Your task to perform on an android device: check out phone information Image 0: 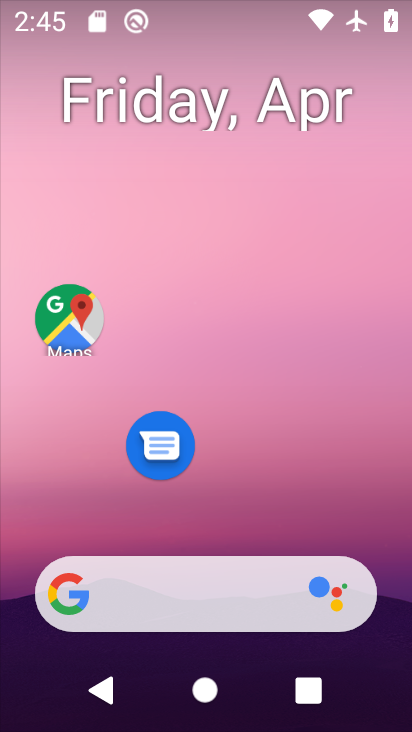
Step 0: drag from (248, 495) to (358, 40)
Your task to perform on an android device: check out phone information Image 1: 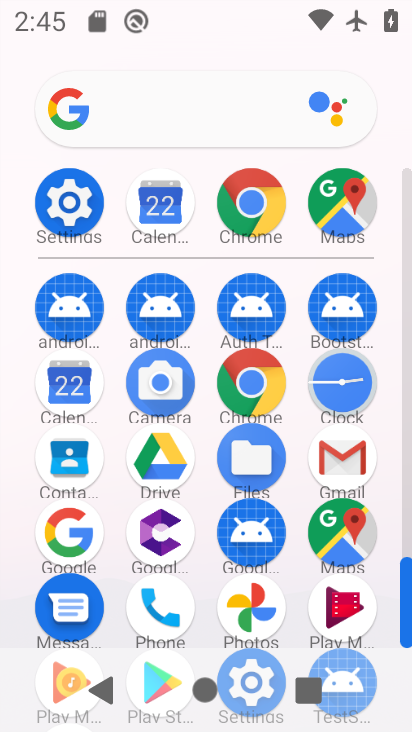
Step 1: drag from (288, 629) to (347, 356)
Your task to perform on an android device: check out phone information Image 2: 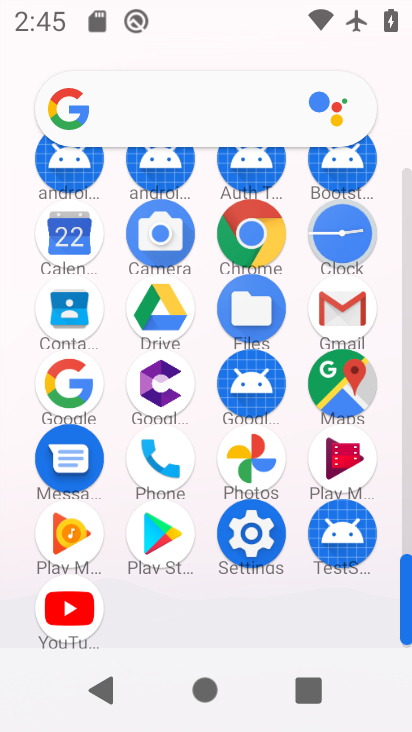
Step 2: click (256, 541)
Your task to perform on an android device: check out phone information Image 3: 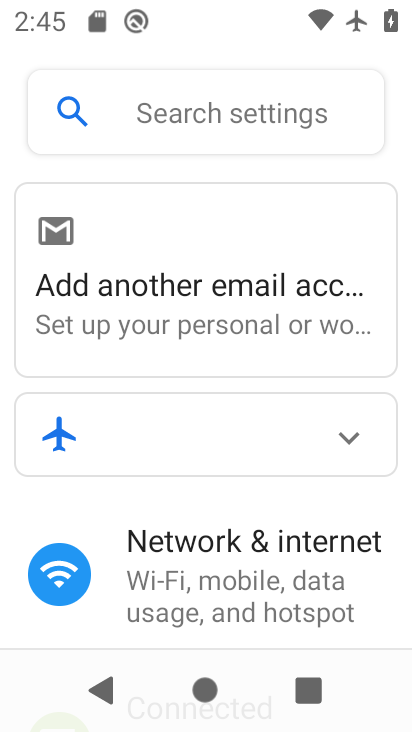
Step 3: drag from (220, 580) to (217, 432)
Your task to perform on an android device: check out phone information Image 4: 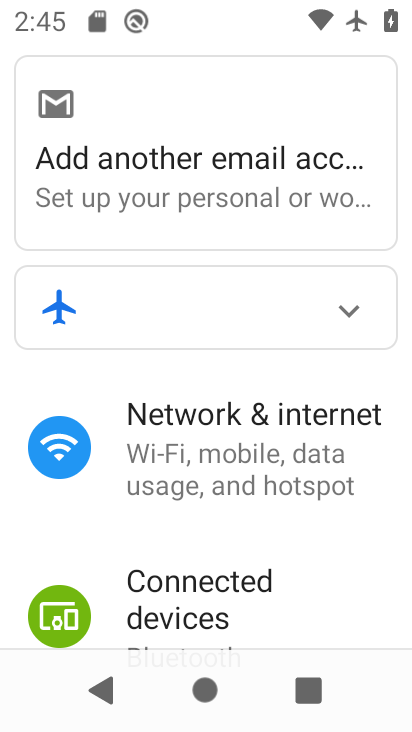
Step 4: drag from (203, 590) to (202, 462)
Your task to perform on an android device: check out phone information Image 5: 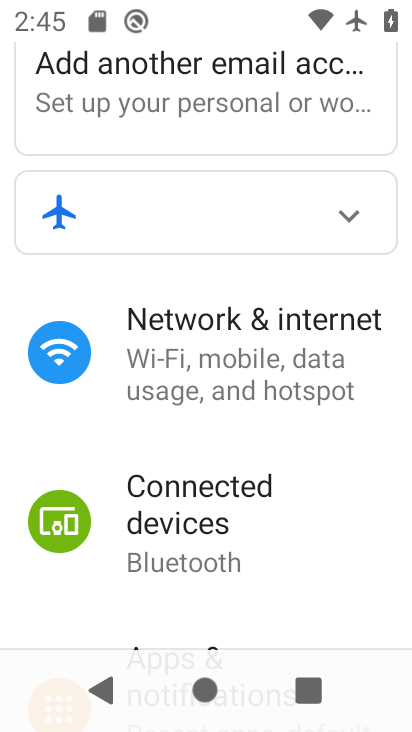
Step 5: drag from (220, 603) to (197, 420)
Your task to perform on an android device: check out phone information Image 6: 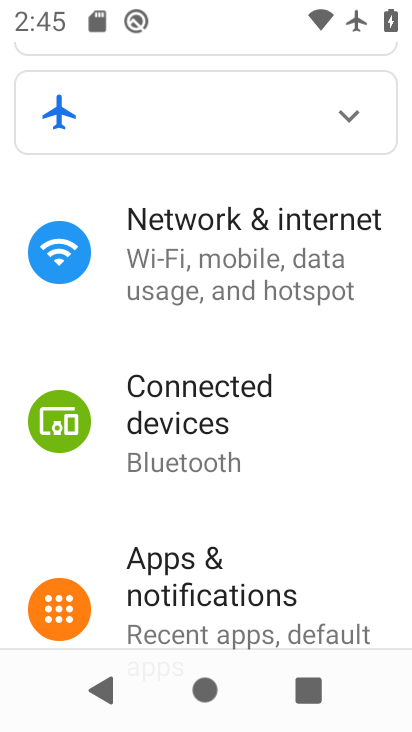
Step 6: drag from (146, 593) to (122, 431)
Your task to perform on an android device: check out phone information Image 7: 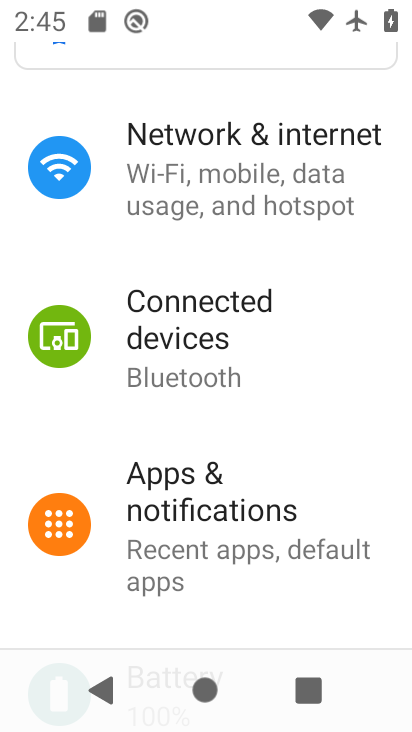
Step 7: drag from (146, 537) to (147, 403)
Your task to perform on an android device: check out phone information Image 8: 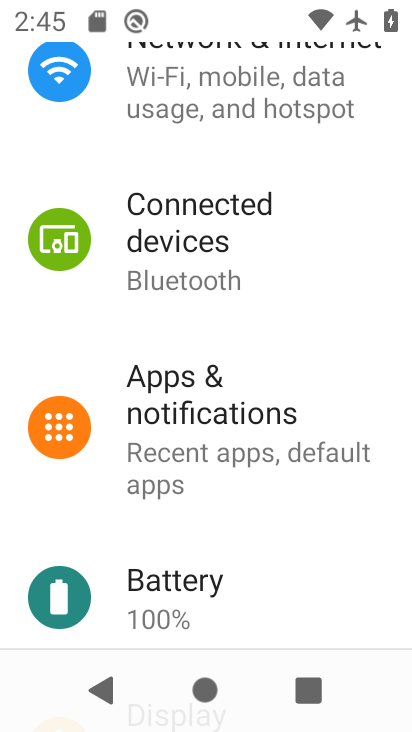
Step 8: drag from (179, 559) to (168, 428)
Your task to perform on an android device: check out phone information Image 9: 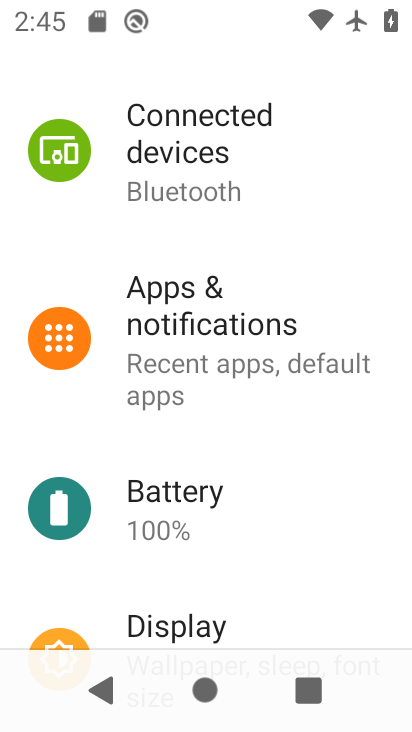
Step 9: drag from (209, 539) to (189, 409)
Your task to perform on an android device: check out phone information Image 10: 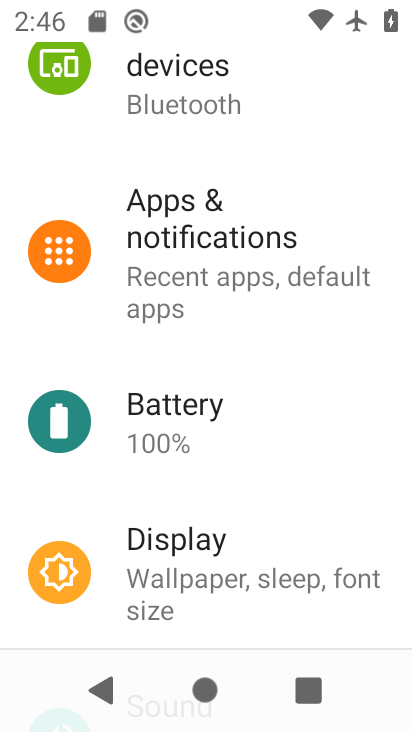
Step 10: drag from (206, 517) to (202, 355)
Your task to perform on an android device: check out phone information Image 11: 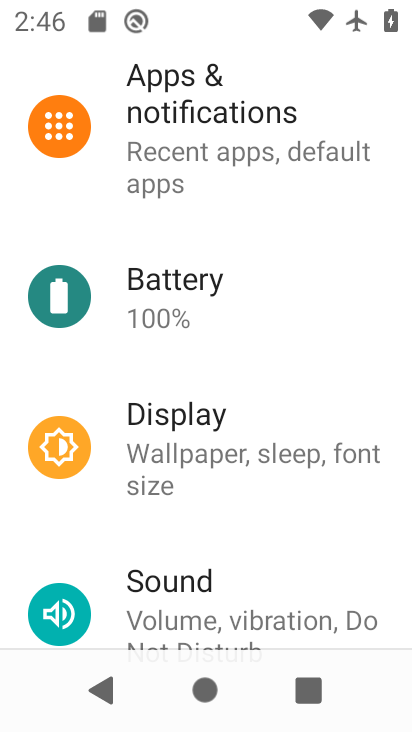
Step 11: drag from (244, 528) to (242, 336)
Your task to perform on an android device: check out phone information Image 12: 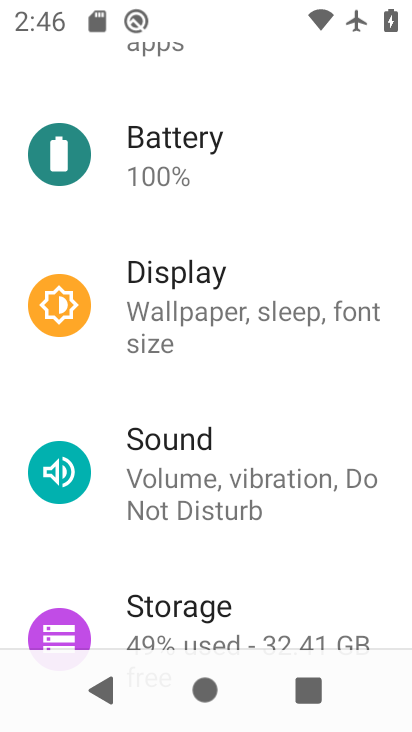
Step 12: drag from (271, 550) to (281, 325)
Your task to perform on an android device: check out phone information Image 13: 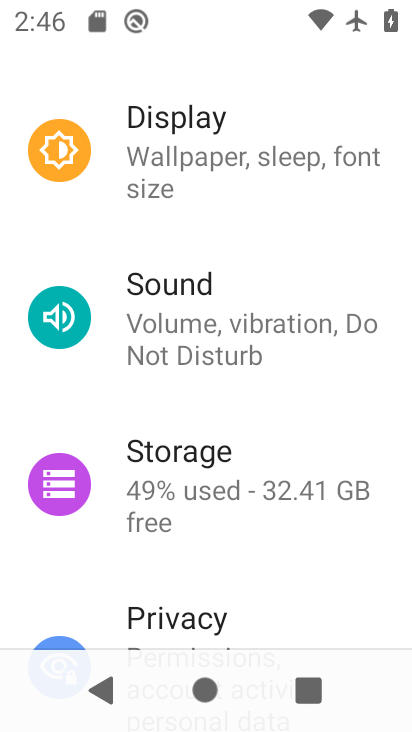
Step 13: drag from (219, 563) to (233, 325)
Your task to perform on an android device: check out phone information Image 14: 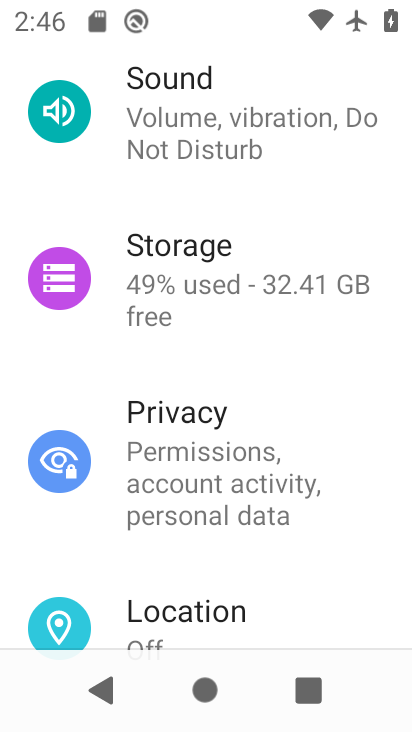
Step 14: drag from (245, 628) to (291, 335)
Your task to perform on an android device: check out phone information Image 15: 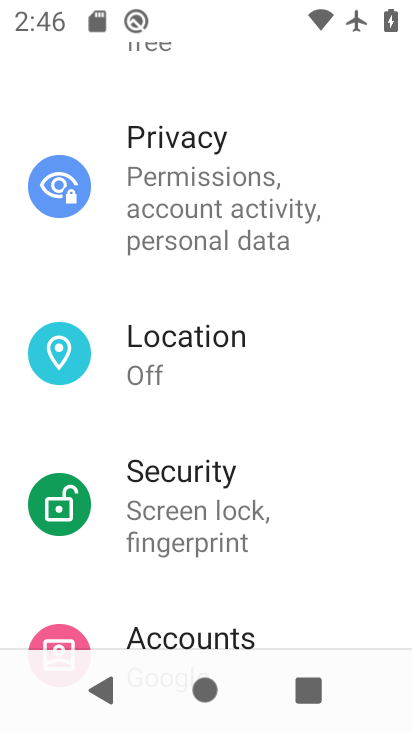
Step 15: drag from (270, 534) to (289, 186)
Your task to perform on an android device: check out phone information Image 16: 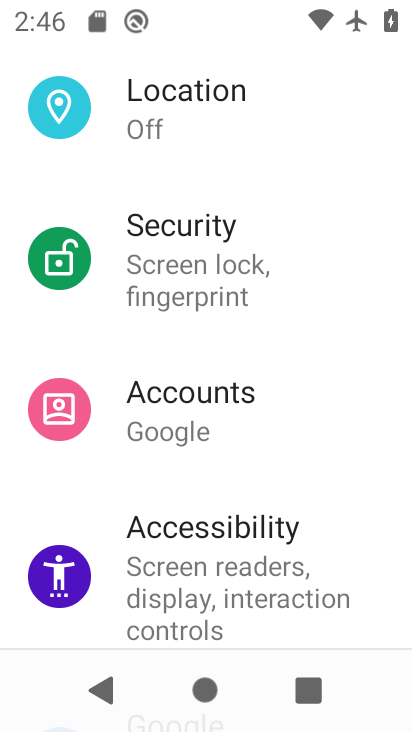
Step 16: drag from (282, 583) to (277, 287)
Your task to perform on an android device: check out phone information Image 17: 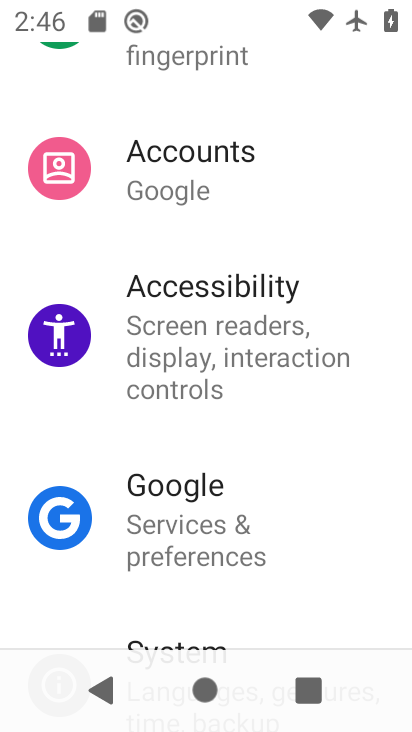
Step 17: drag from (256, 528) to (292, 256)
Your task to perform on an android device: check out phone information Image 18: 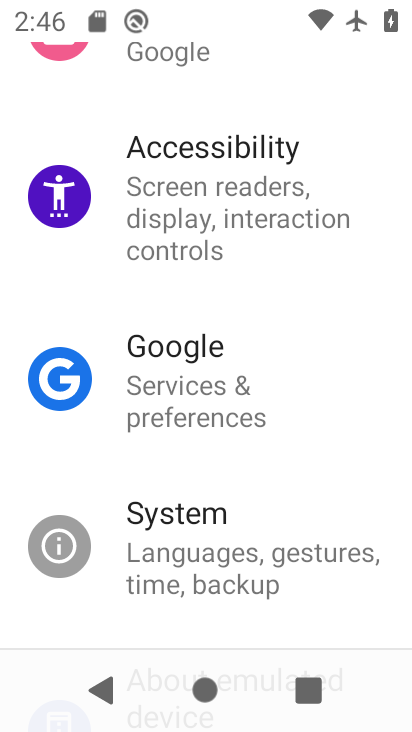
Step 18: drag from (263, 559) to (253, 184)
Your task to perform on an android device: check out phone information Image 19: 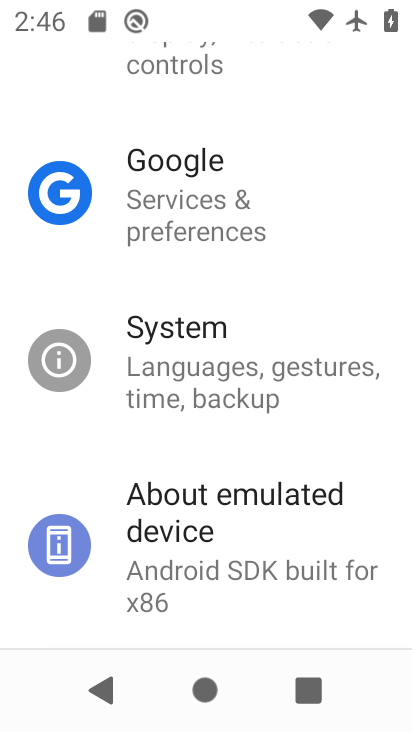
Step 19: click (250, 519)
Your task to perform on an android device: check out phone information Image 20: 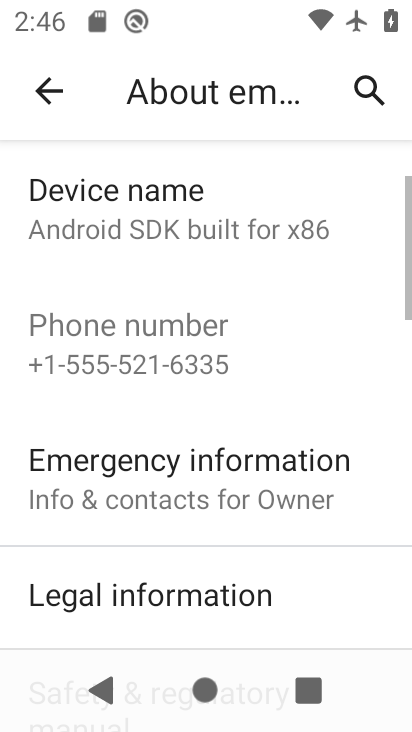
Step 20: task complete